Your task to perform on an android device: Open accessibility settings Image 0: 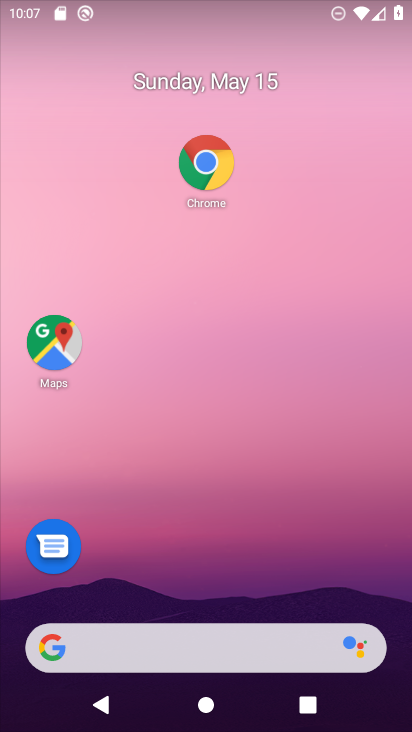
Step 0: drag from (271, 513) to (281, 168)
Your task to perform on an android device: Open accessibility settings Image 1: 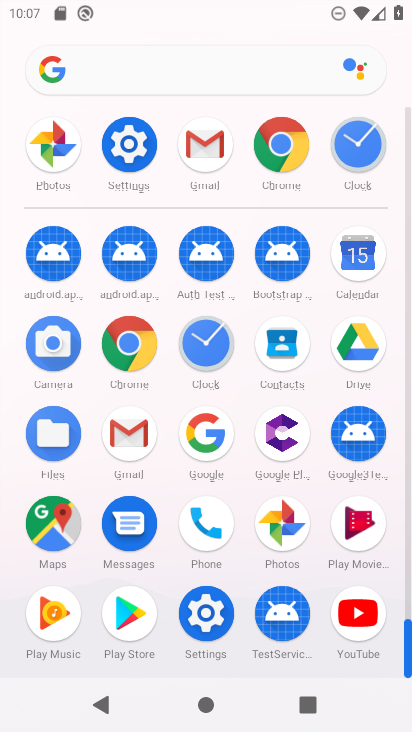
Step 1: click (116, 149)
Your task to perform on an android device: Open accessibility settings Image 2: 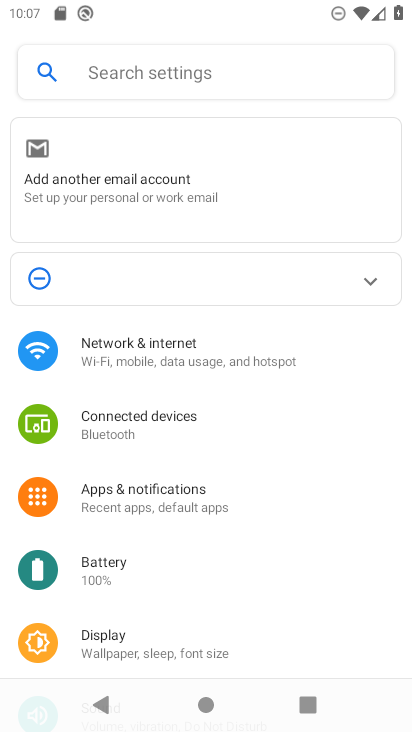
Step 2: drag from (207, 613) to (283, 48)
Your task to perform on an android device: Open accessibility settings Image 3: 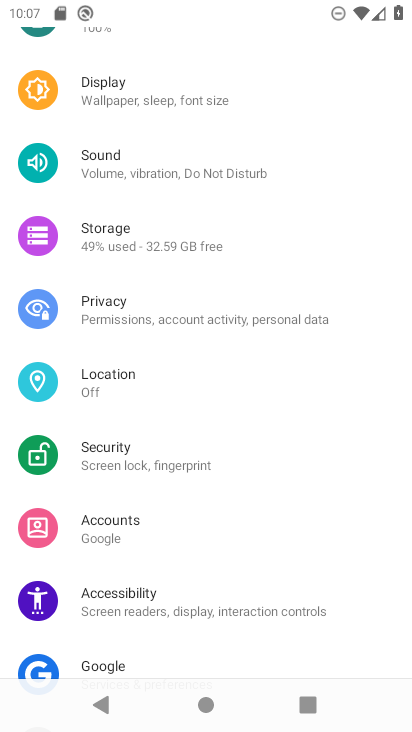
Step 3: click (172, 601)
Your task to perform on an android device: Open accessibility settings Image 4: 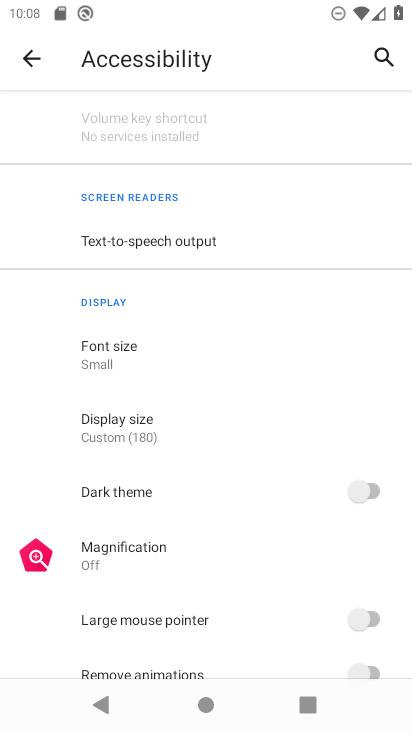
Step 4: task complete